Your task to perform on an android device: move an email to a new category in the gmail app Image 0: 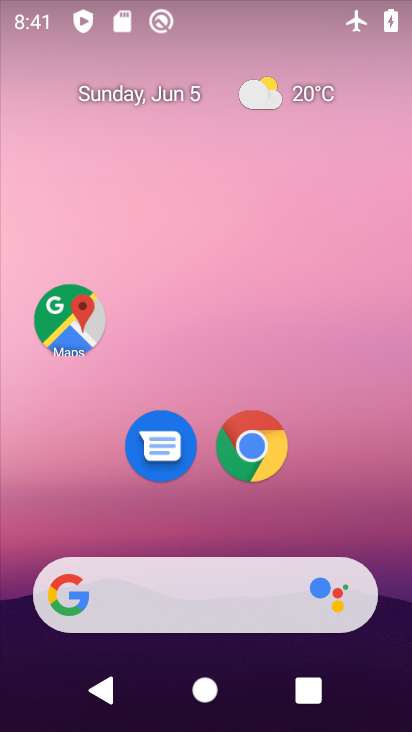
Step 0: drag from (226, 553) to (223, 195)
Your task to perform on an android device: move an email to a new category in the gmail app Image 1: 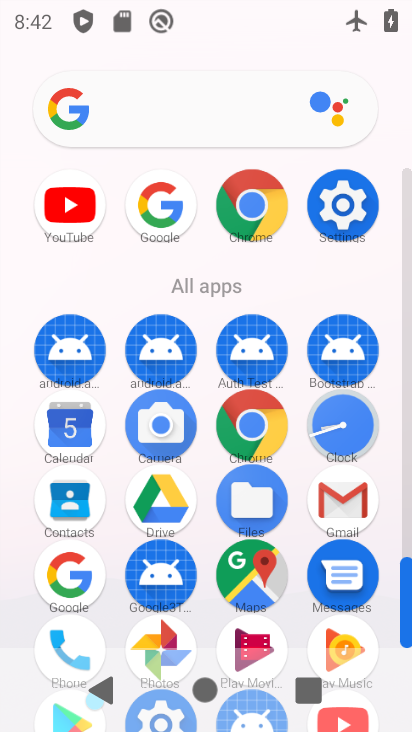
Step 1: click (345, 504)
Your task to perform on an android device: move an email to a new category in the gmail app Image 2: 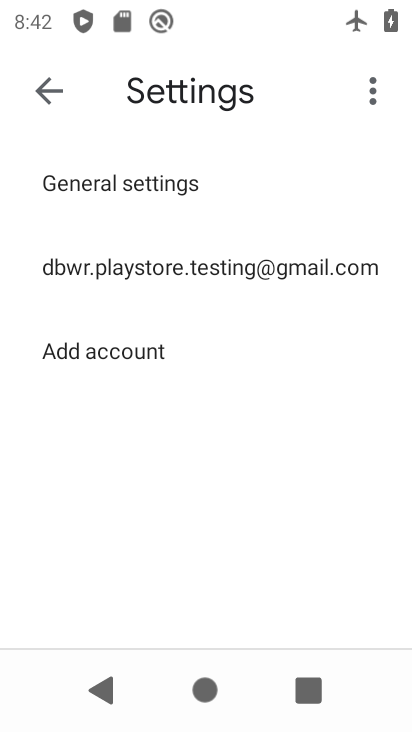
Step 2: click (123, 276)
Your task to perform on an android device: move an email to a new category in the gmail app Image 3: 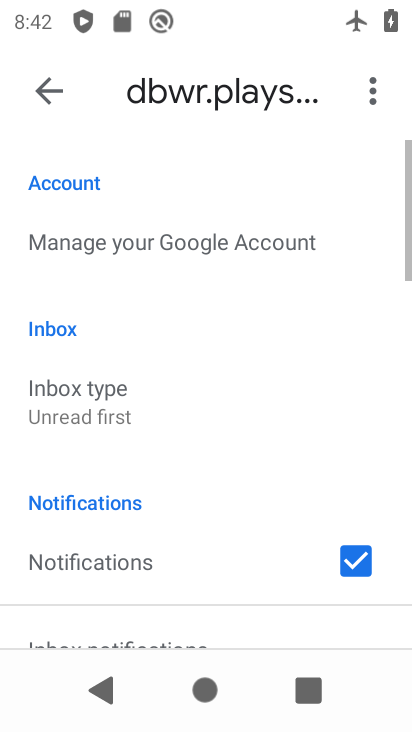
Step 3: click (48, 83)
Your task to perform on an android device: move an email to a new category in the gmail app Image 4: 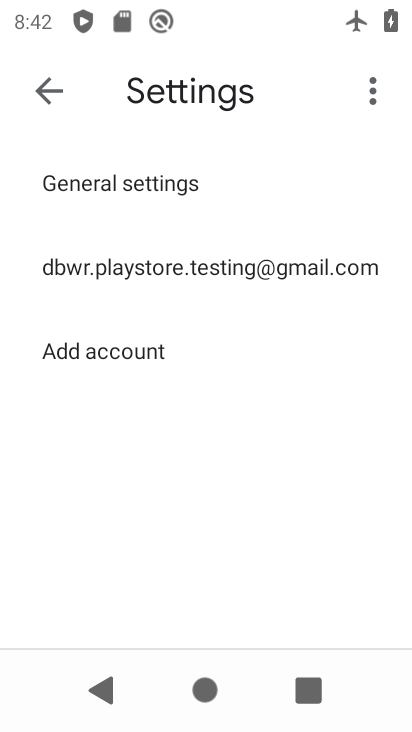
Step 4: click (47, 84)
Your task to perform on an android device: move an email to a new category in the gmail app Image 5: 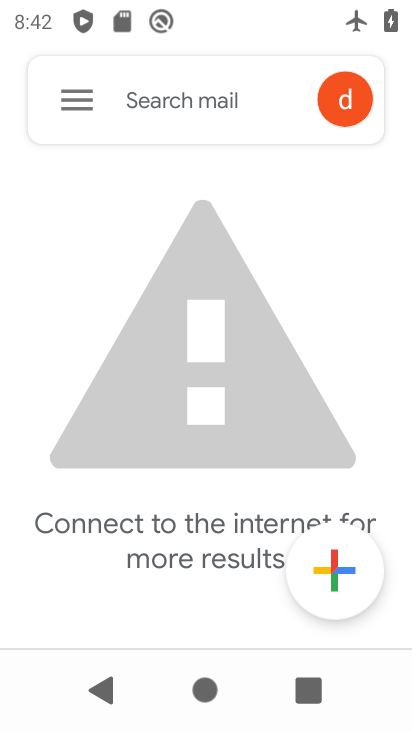
Step 5: click (74, 122)
Your task to perform on an android device: move an email to a new category in the gmail app Image 6: 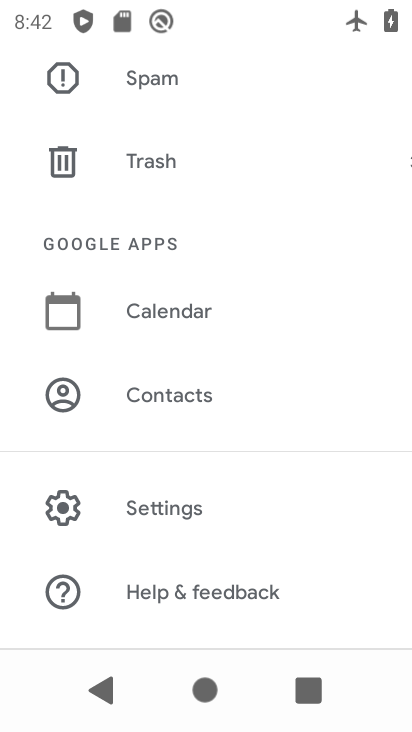
Step 6: drag from (213, 503) to (225, 284)
Your task to perform on an android device: move an email to a new category in the gmail app Image 7: 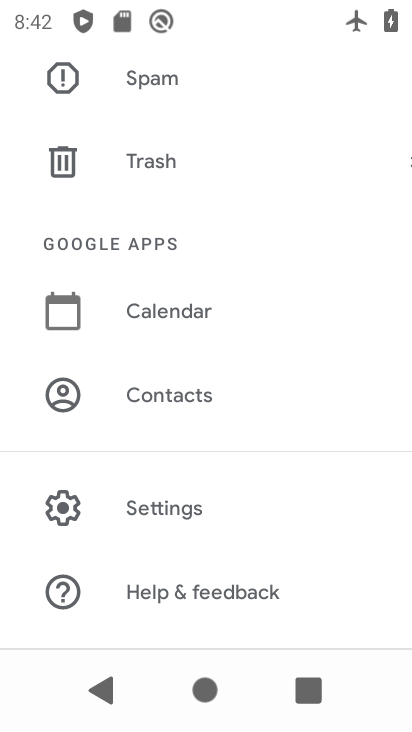
Step 7: drag from (192, 266) to (232, 615)
Your task to perform on an android device: move an email to a new category in the gmail app Image 8: 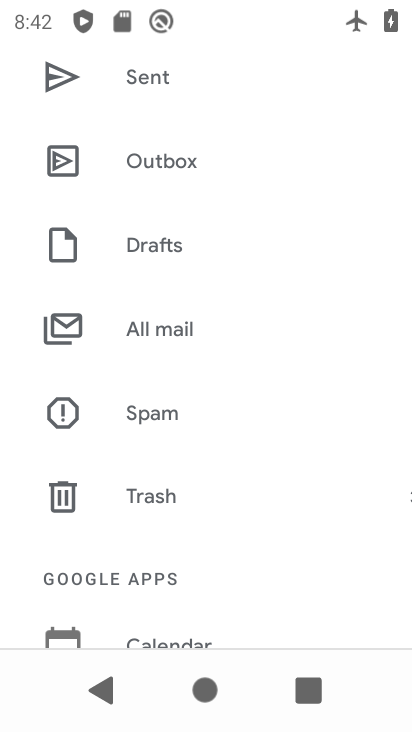
Step 8: click (165, 331)
Your task to perform on an android device: move an email to a new category in the gmail app Image 9: 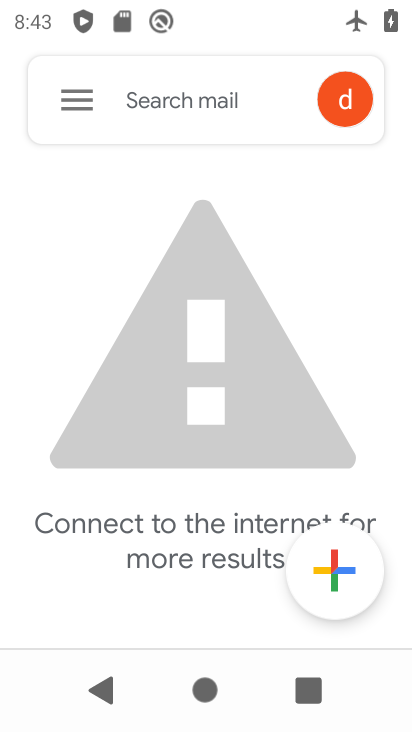
Step 9: task complete